Your task to perform on an android device: Open CNN.com Image 0: 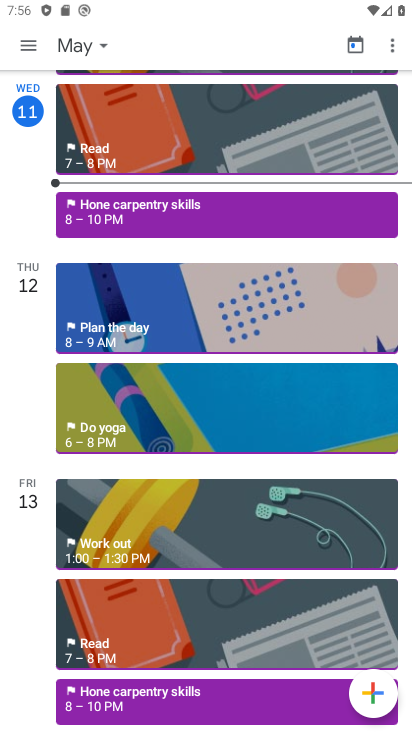
Step 0: press home button
Your task to perform on an android device: Open CNN.com Image 1: 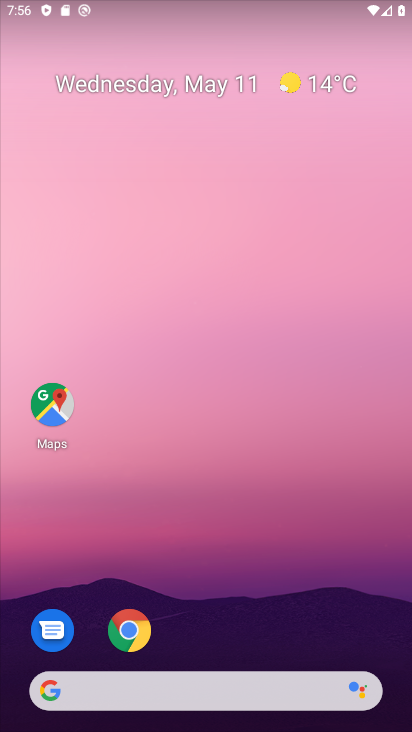
Step 1: click (127, 622)
Your task to perform on an android device: Open CNN.com Image 2: 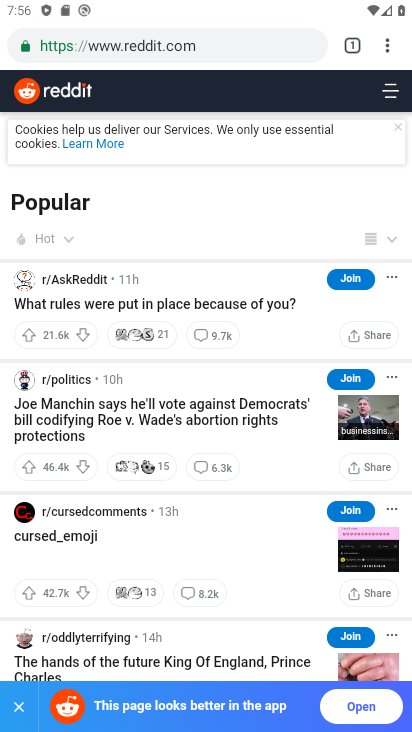
Step 2: click (343, 50)
Your task to perform on an android device: Open CNN.com Image 3: 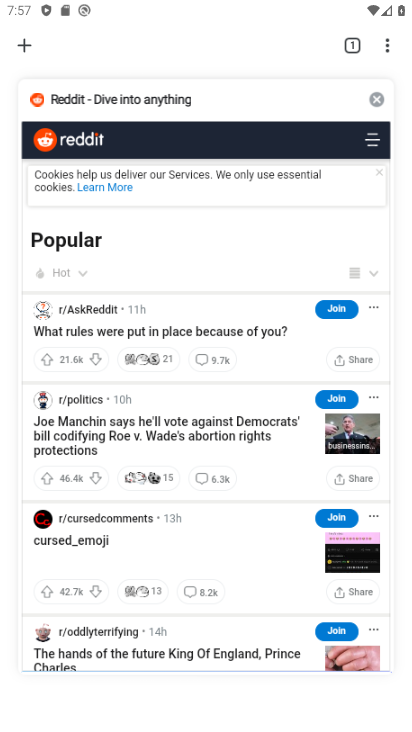
Step 3: click (12, 44)
Your task to perform on an android device: Open CNN.com Image 4: 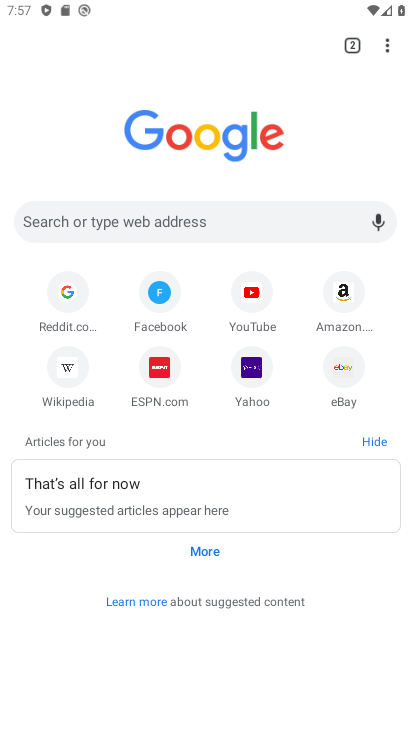
Step 4: click (135, 244)
Your task to perform on an android device: Open CNN.com Image 5: 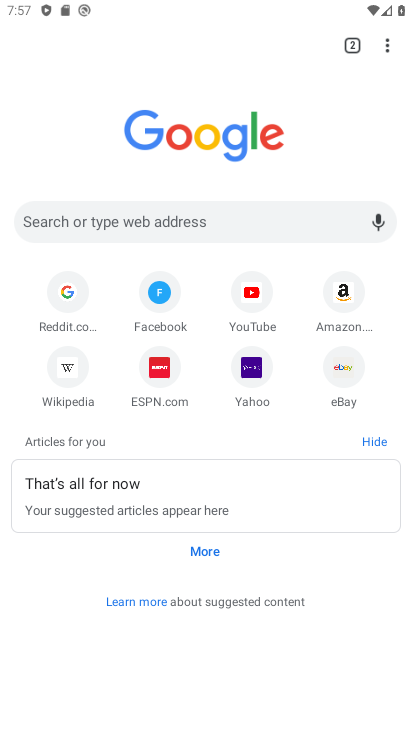
Step 5: click (126, 231)
Your task to perform on an android device: Open CNN.com Image 6: 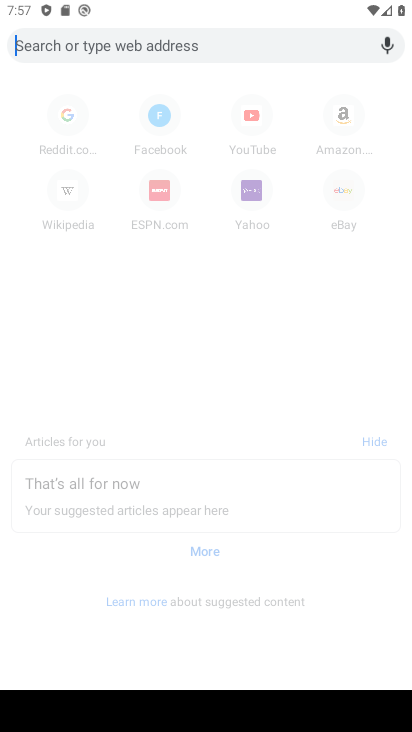
Step 6: type "cnn"
Your task to perform on an android device: Open CNN.com Image 7: 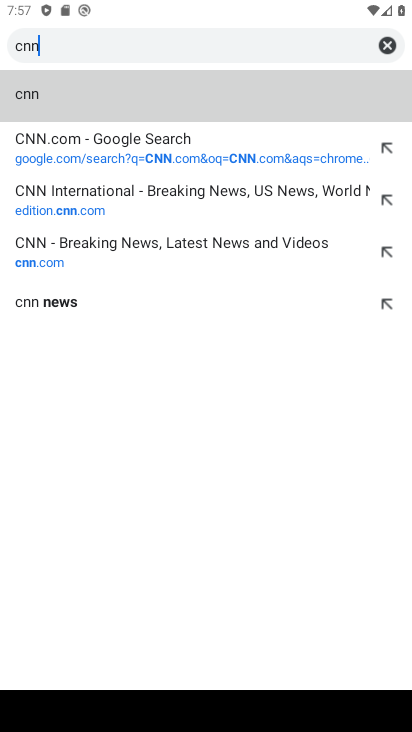
Step 7: click (43, 135)
Your task to perform on an android device: Open CNN.com Image 8: 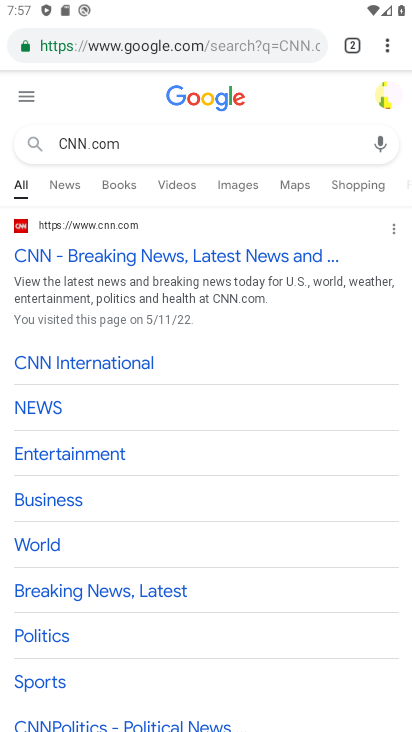
Step 8: click (67, 247)
Your task to perform on an android device: Open CNN.com Image 9: 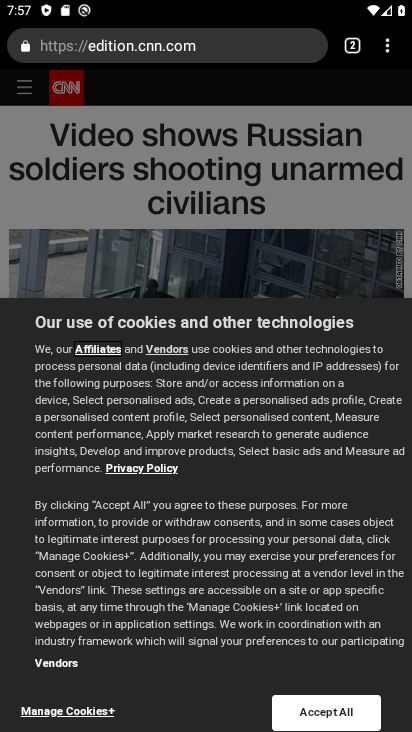
Step 9: task complete